Your task to perform on an android device: empty trash in the gmail app Image 0: 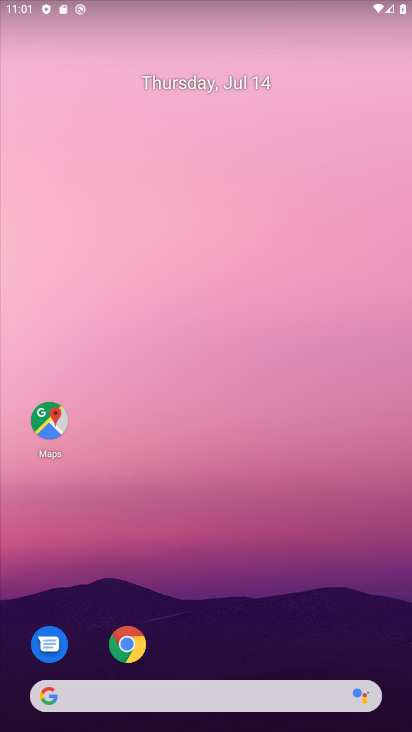
Step 0: drag from (375, 635) to (161, 54)
Your task to perform on an android device: empty trash in the gmail app Image 1: 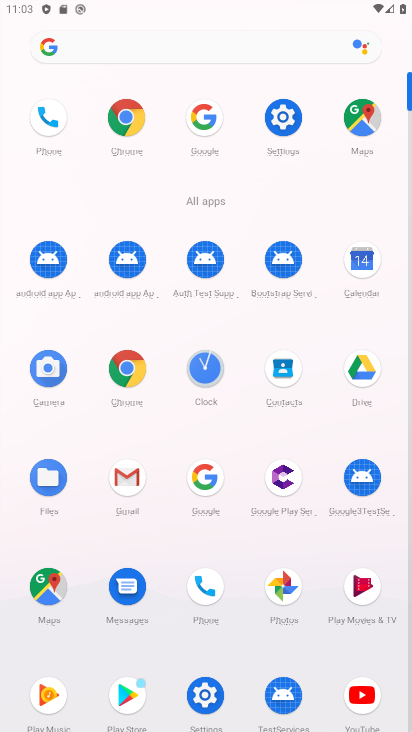
Step 1: click (133, 486)
Your task to perform on an android device: empty trash in the gmail app Image 2: 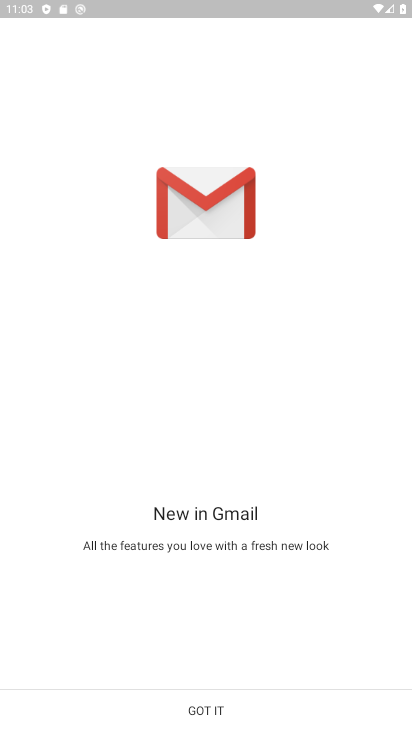
Step 2: click (192, 706)
Your task to perform on an android device: empty trash in the gmail app Image 3: 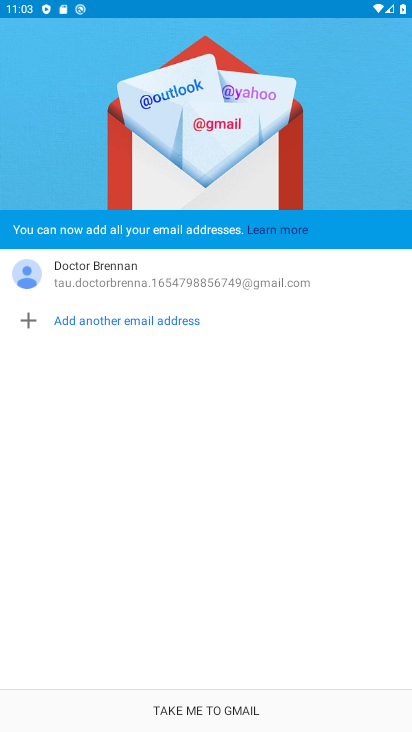
Step 3: click (191, 707)
Your task to perform on an android device: empty trash in the gmail app Image 4: 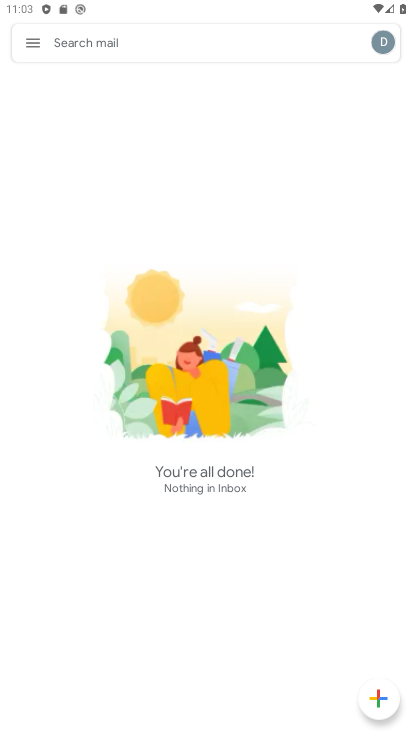
Step 4: click (26, 44)
Your task to perform on an android device: empty trash in the gmail app Image 5: 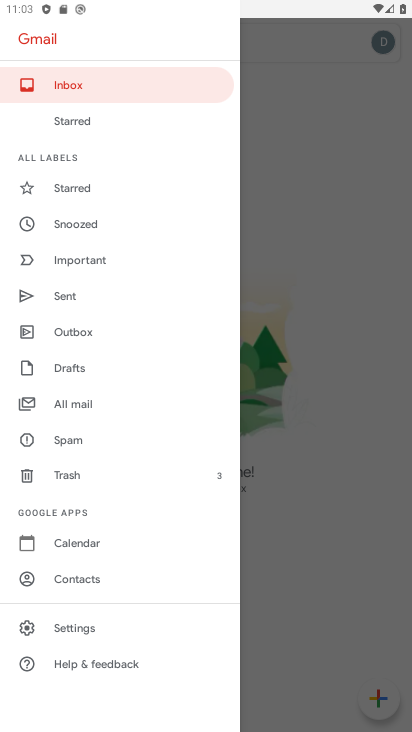
Step 5: click (68, 469)
Your task to perform on an android device: empty trash in the gmail app Image 6: 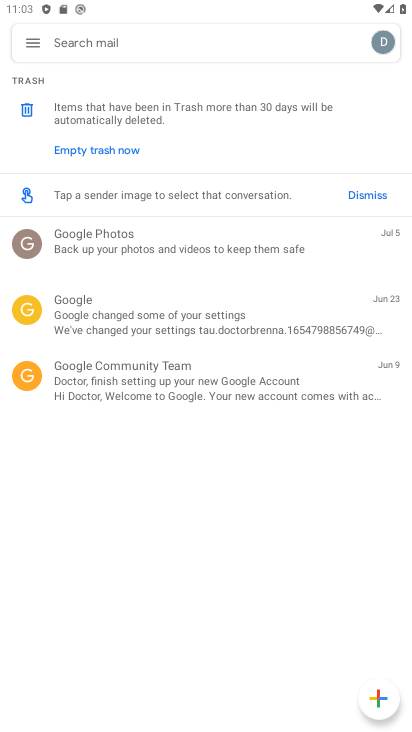
Step 6: click (100, 157)
Your task to perform on an android device: empty trash in the gmail app Image 7: 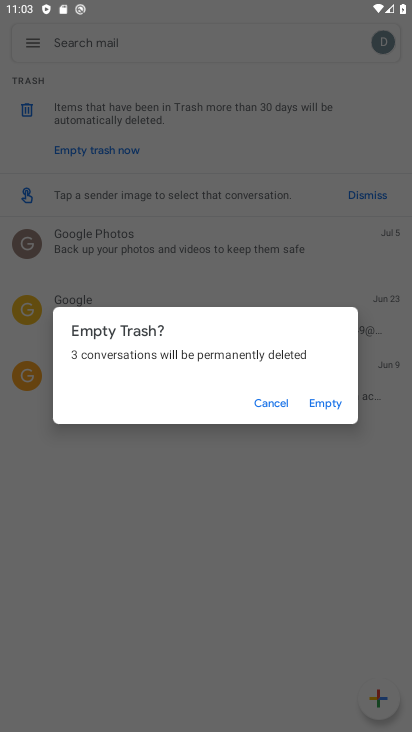
Step 7: click (320, 413)
Your task to perform on an android device: empty trash in the gmail app Image 8: 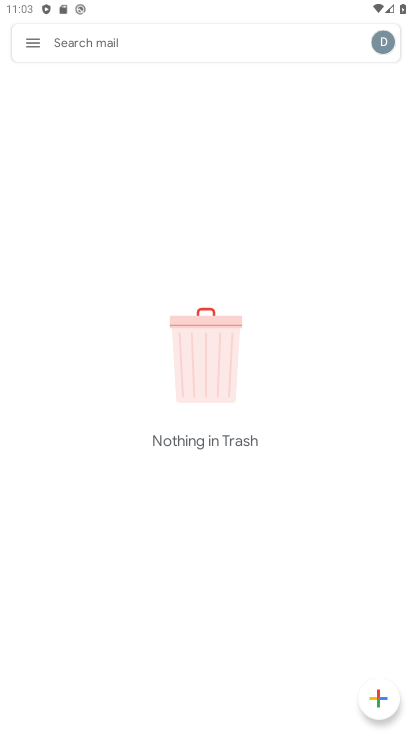
Step 8: task complete